Your task to perform on an android device: Do I have any events today? Image 0: 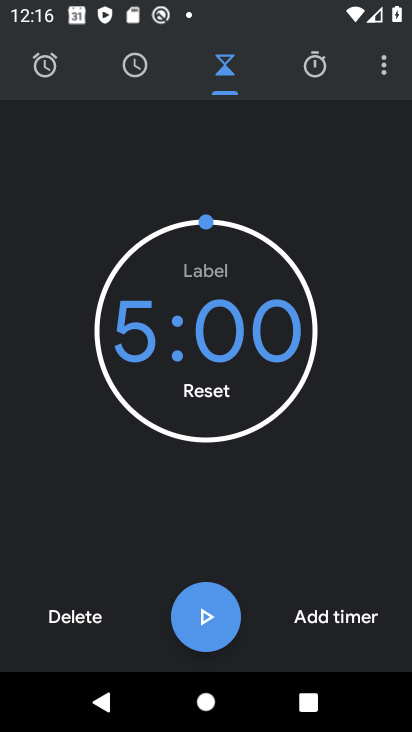
Step 0: press home button
Your task to perform on an android device: Do I have any events today? Image 1: 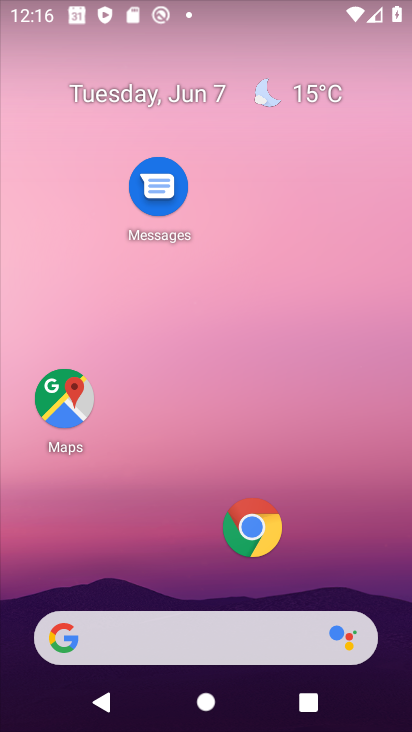
Step 1: drag from (162, 600) to (324, 2)
Your task to perform on an android device: Do I have any events today? Image 2: 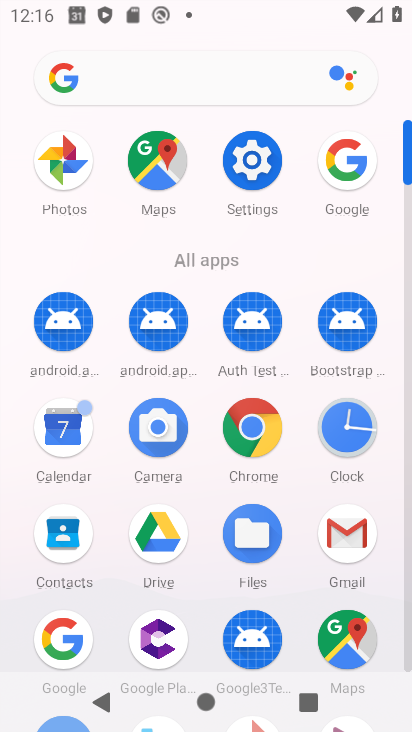
Step 2: click (58, 432)
Your task to perform on an android device: Do I have any events today? Image 3: 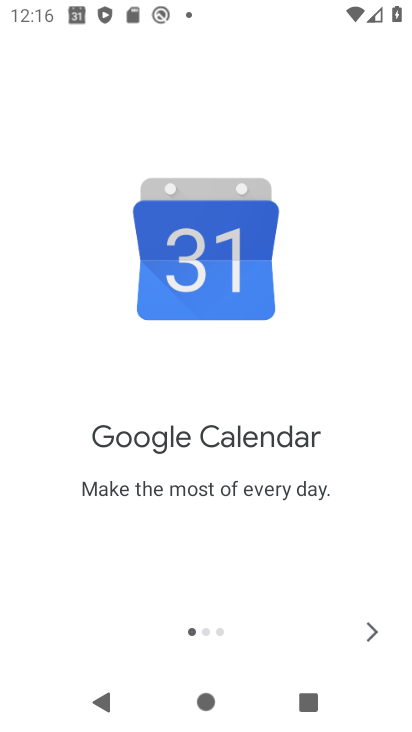
Step 3: click (372, 628)
Your task to perform on an android device: Do I have any events today? Image 4: 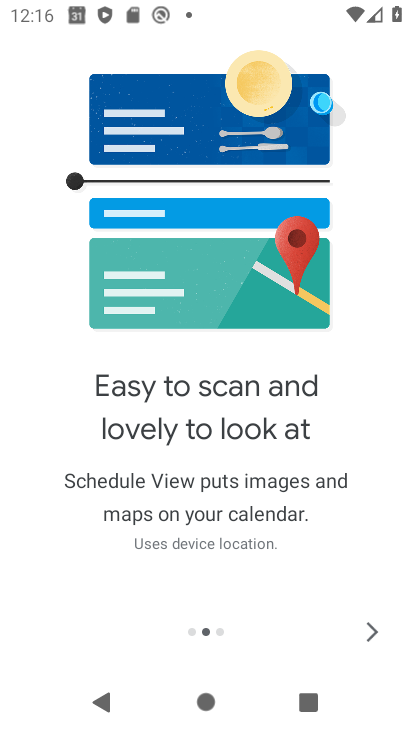
Step 4: click (372, 628)
Your task to perform on an android device: Do I have any events today? Image 5: 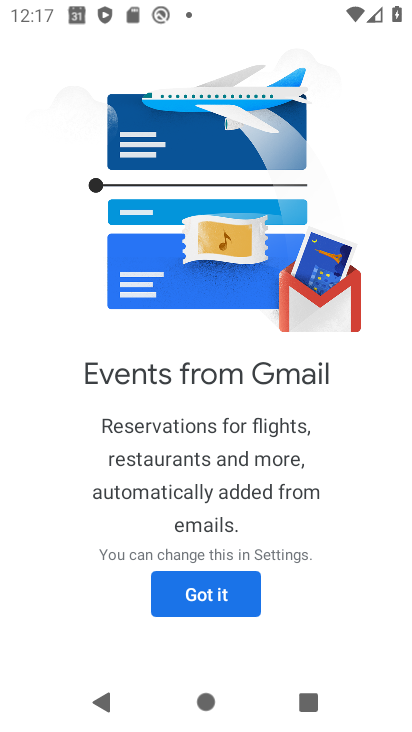
Step 5: click (227, 605)
Your task to perform on an android device: Do I have any events today? Image 6: 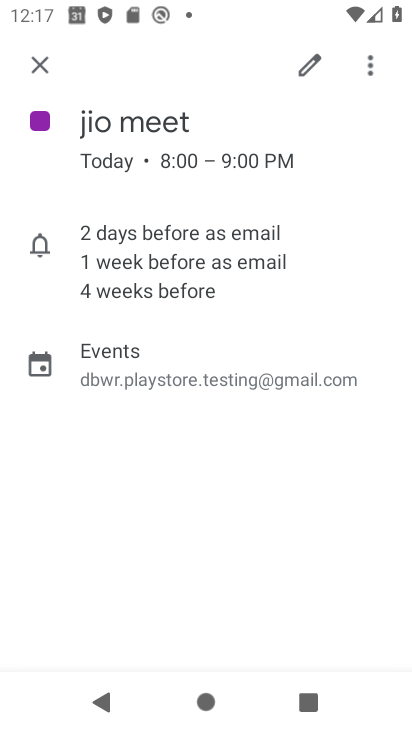
Step 6: task complete